Your task to perform on an android device: See recent photos Image 0: 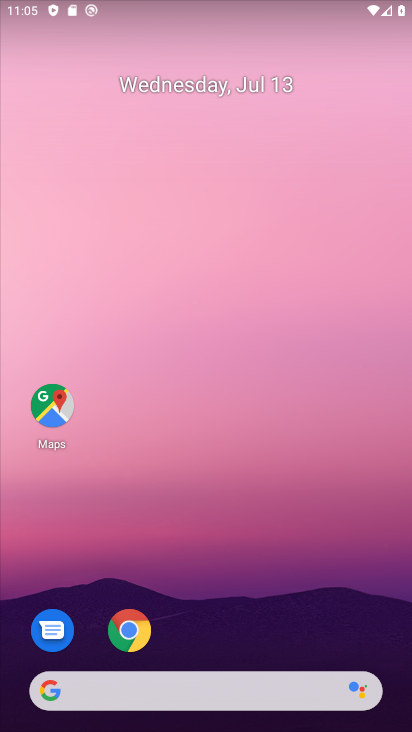
Step 0: drag from (334, 586) to (378, 59)
Your task to perform on an android device: See recent photos Image 1: 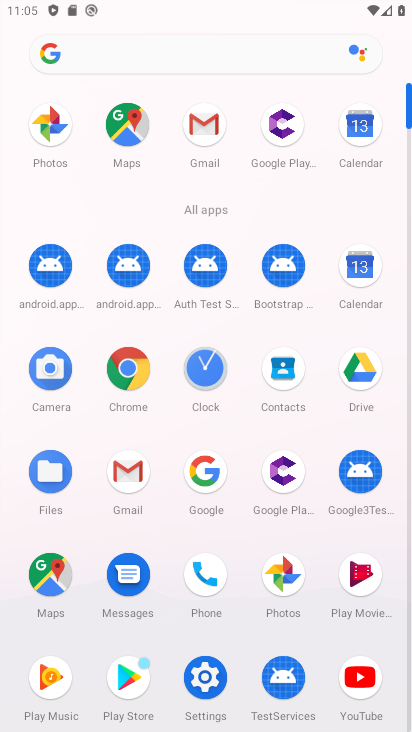
Step 1: click (295, 573)
Your task to perform on an android device: See recent photos Image 2: 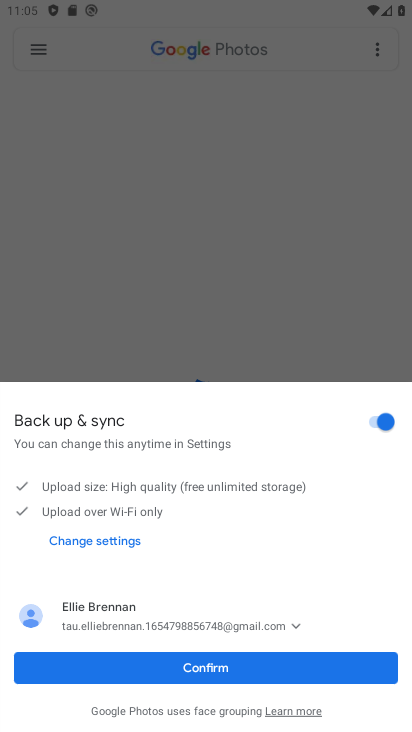
Step 2: click (264, 668)
Your task to perform on an android device: See recent photos Image 3: 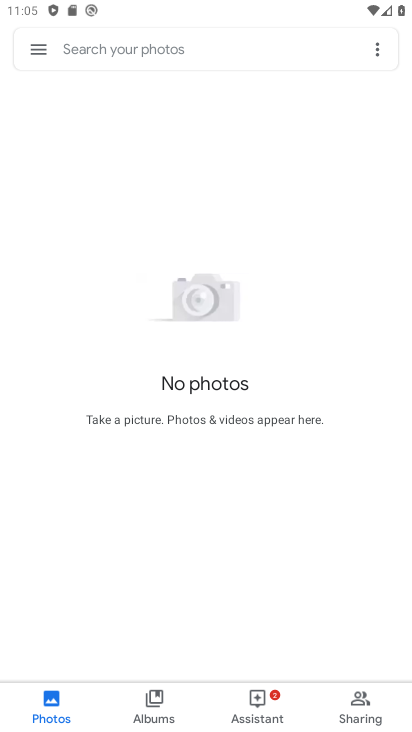
Step 3: task complete